Your task to perform on an android device: allow notifications from all sites in the chrome app Image 0: 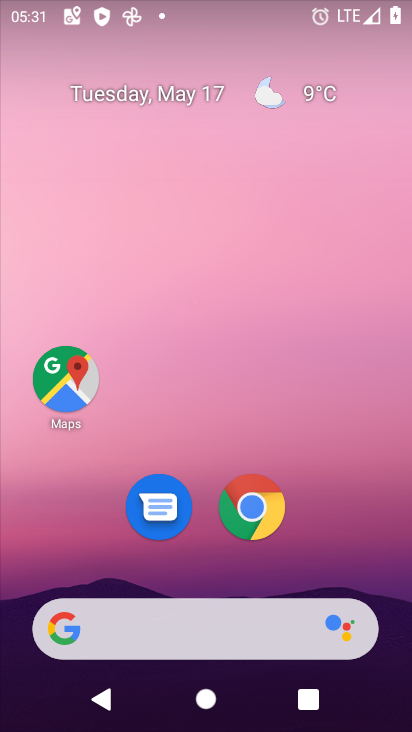
Step 0: click (267, 500)
Your task to perform on an android device: allow notifications from all sites in the chrome app Image 1: 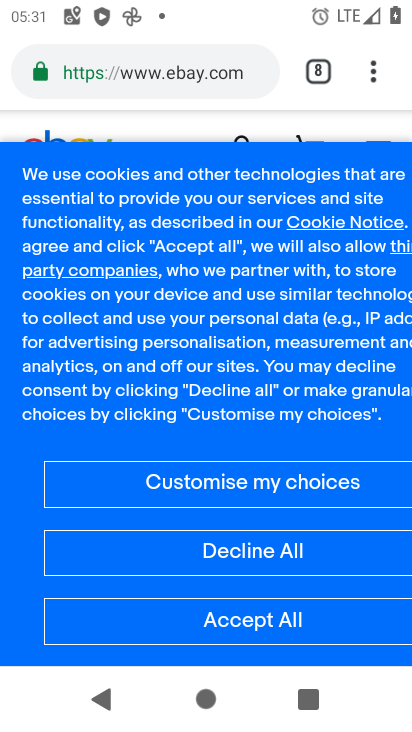
Step 1: click (320, 76)
Your task to perform on an android device: allow notifications from all sites in the chrome app Image 2: 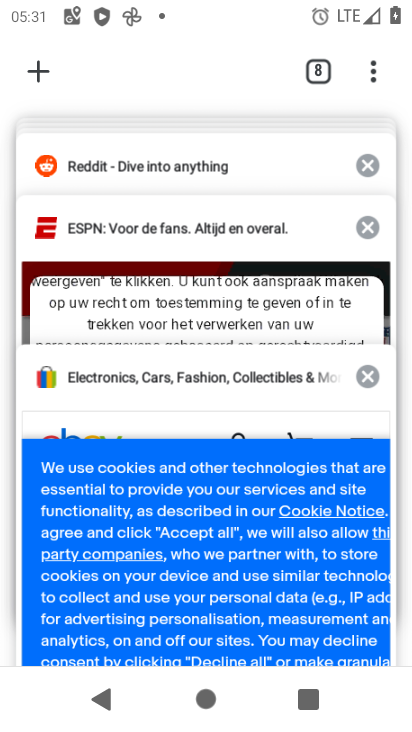
Step 2: click (317, 70)
Your task to perform on an android device: allow notifications from all sites in the chrome app Image 3: 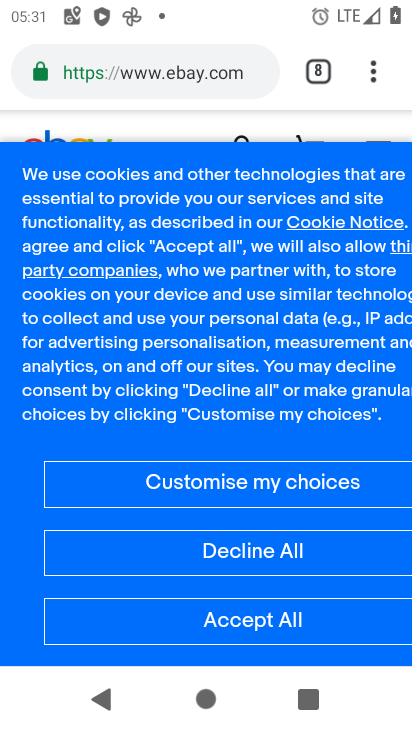
Step 3: click (384, 71)
Your task to perform on an android device: allow notifications from all sites in the chrome app Image 4: 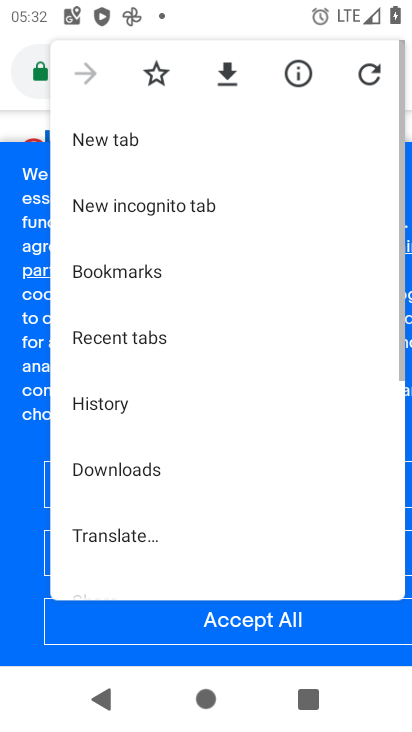
Step 4: drag from (244, 512) to (225, 102)
Your task to perform on an android device: allow notifications from all sites in the chrome app Image 5: 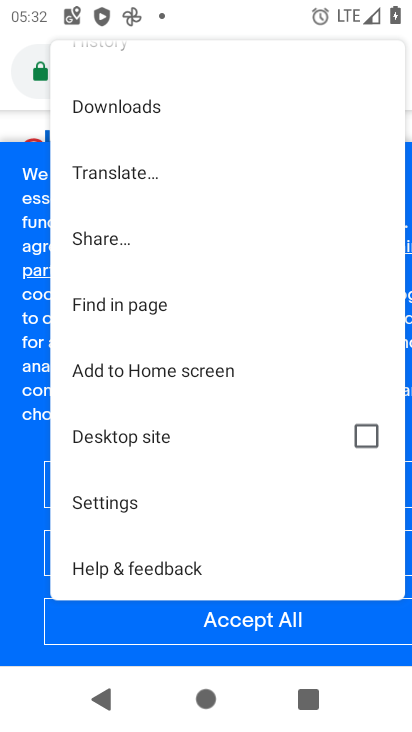
Step 5: click (202, 512)
Your task to perform on an android device: allow notifications from all sites in the chrome app Image 6: 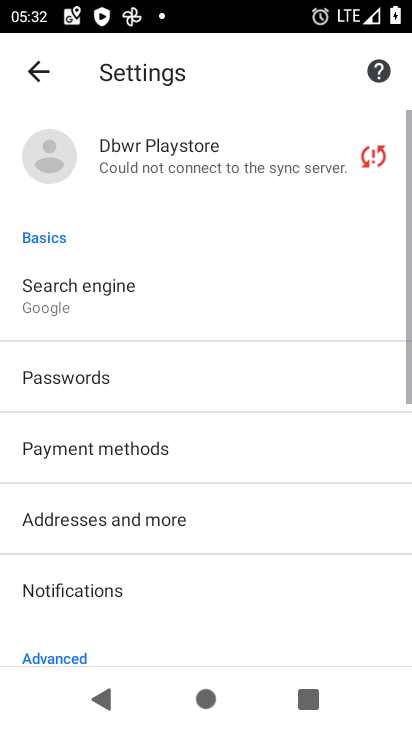
Step 6: drag from (225, 610) to (216, 138)
Your task to perform on an android device: allow notifications from all sites in the chrome app Image 7: 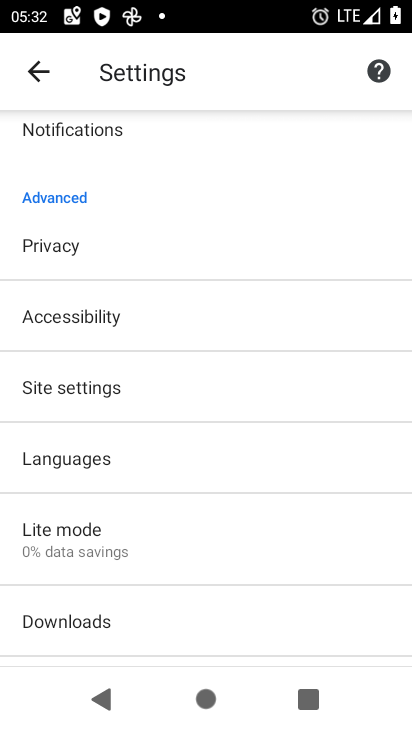
Step 7: click (137, 382)
Your task to perform on an android device: allow notifications from all sites in the chrome app Image 8: 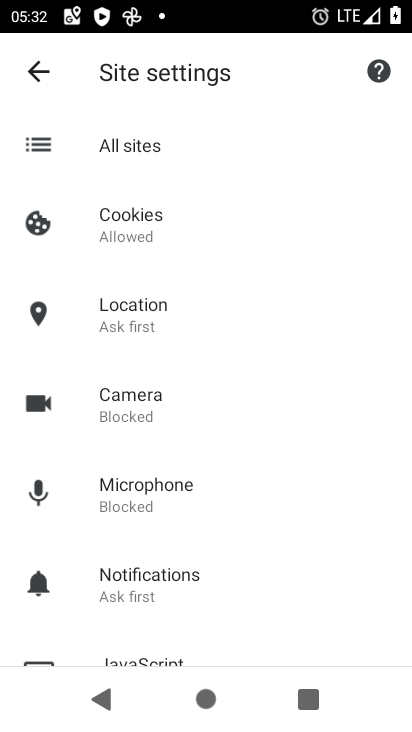
Step 8: drag from (189, 563) to (203, 384)
Your task to perform on an android device: allow notifications from all sites in the chrome app Image 9: 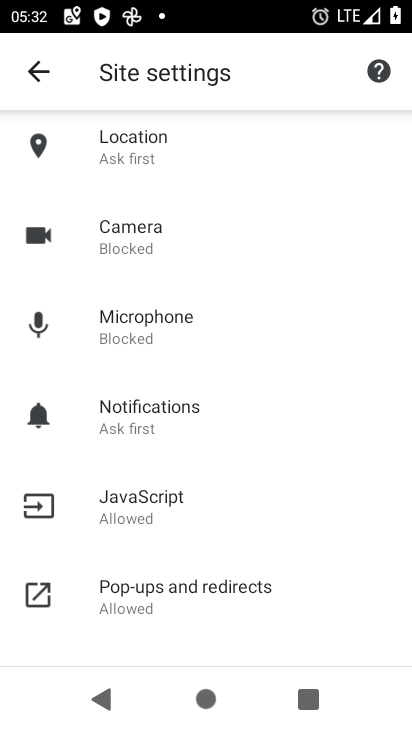
Step 9: click (162, 419)
Your task to perform on an android device: allow notifications from all sites in the chrome app Image 10: 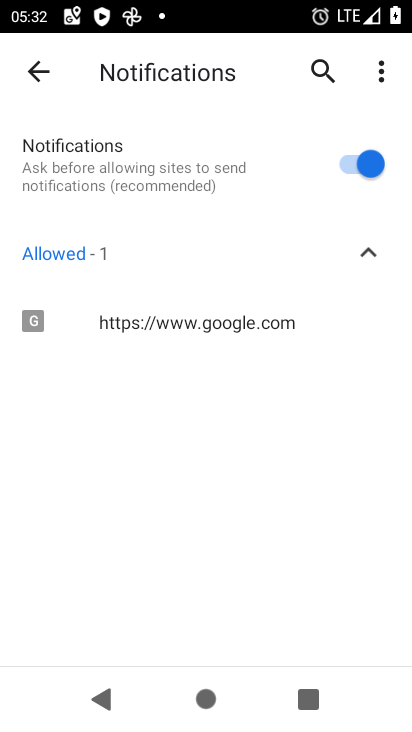
Step 10: task complete